Your task to perform on an android device: turn on sleep mode Image 0: 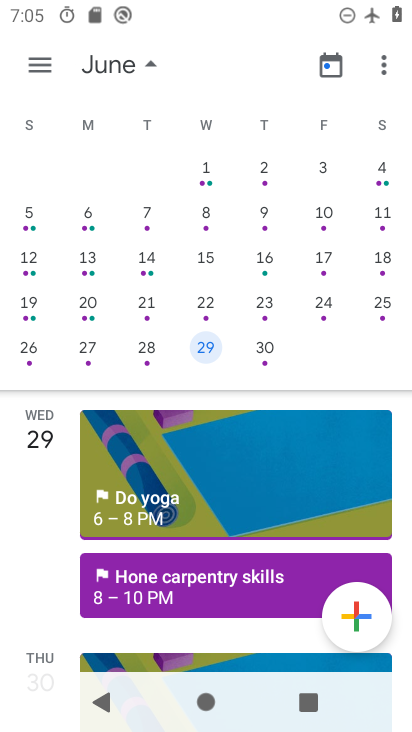
Step 0: press home button
Your task to perform on an android device: turn on sleep mode Image 1: 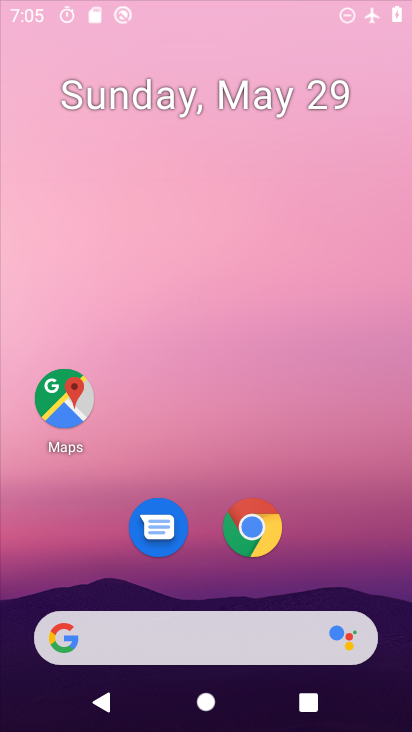
Step 1: drag from (359, 602) to (338, 41)
Your task to perform on an android device: turn on sleep mode Image 2: 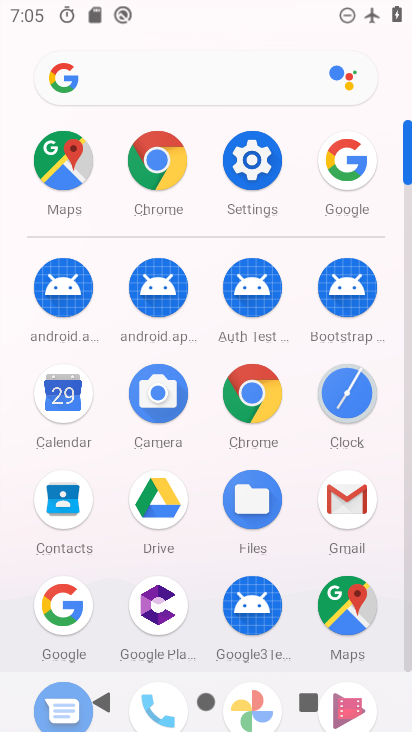
Step 2: click (234, 162)
Your task to perform on an android device: turn on sleep mode Image 3: 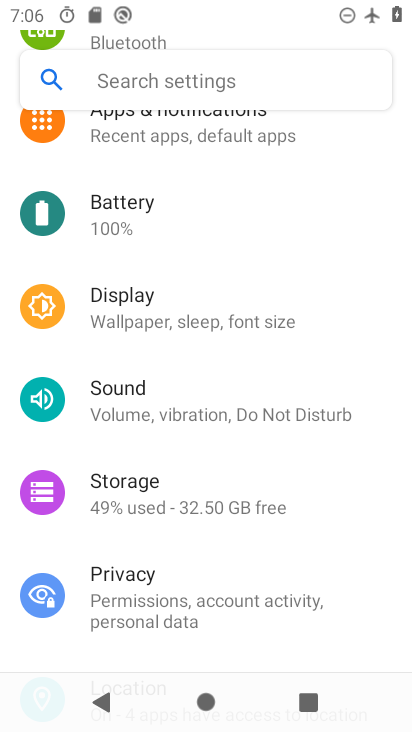
Step 3: task complete